Your task to perform on an android device: delete location history Image 0: 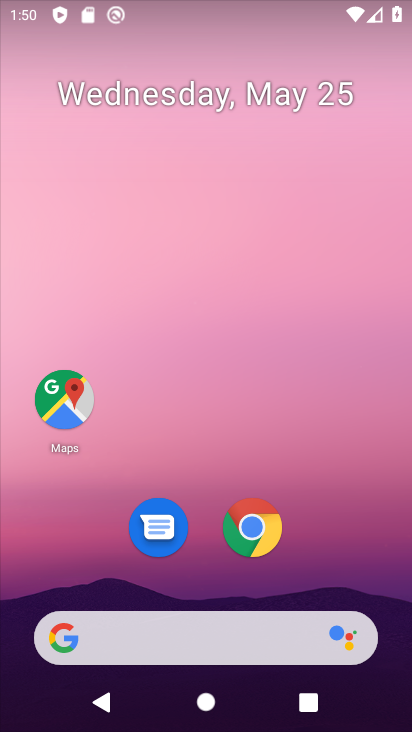
Step 0: drag from (213, 566) to (239, 195)
Your task to perform on an android device: delete location history Image 1: 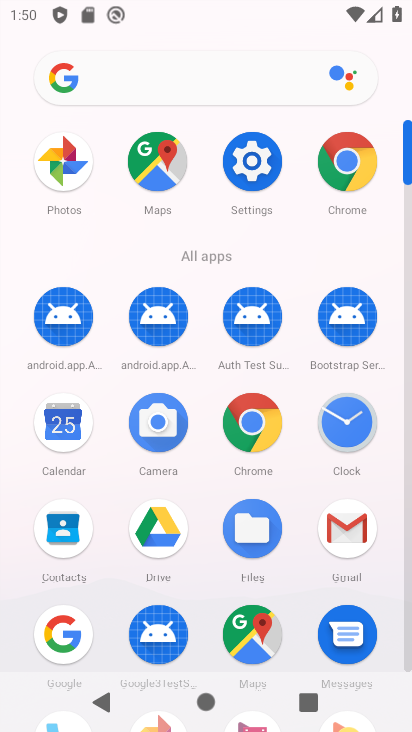
Step 1: click (248, 159)
Your task to perform on an android device: delete location history Image 2: 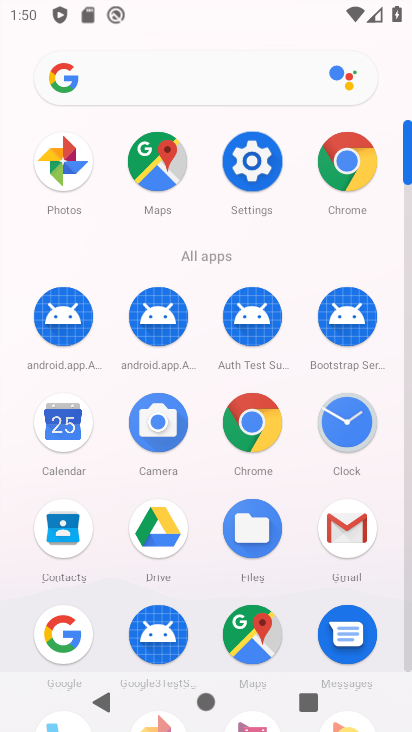
Step 2: click (248, 159)
Your task to perform on an android device: delete location history Image 3: 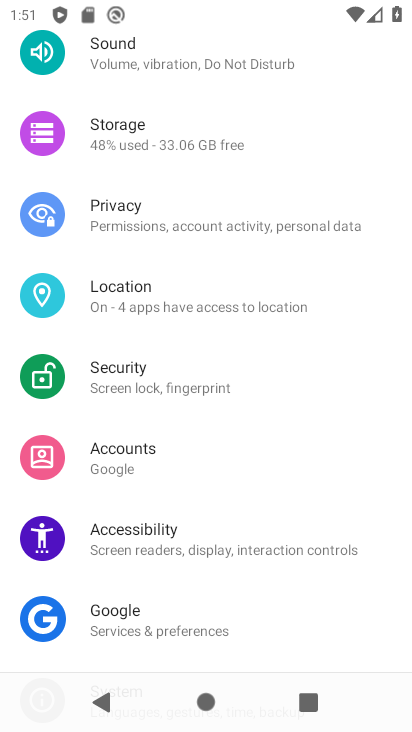
Step 3: click (158, 304)
Your task to perform on an android device: delete location history Image 4: 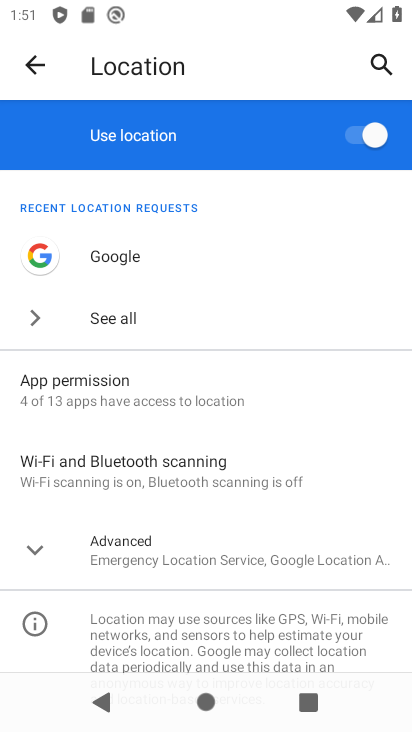
Step 4: drag from (215, 557) to (235, 361)
Your task to perform on an android device: delete location history Image 5: 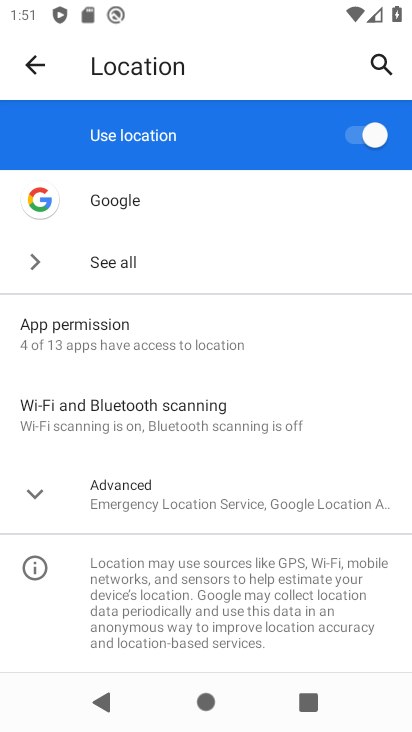
Step 5: click (167, 509)
Your task to perform on an android device: delete location history Image 6: 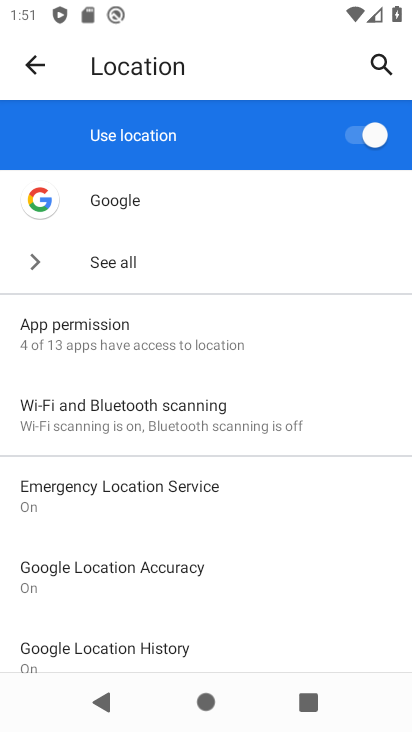
Step 6: drag from (203, 573) to (223, 361)
Your task to perform on an android device: delete location history Image 7: 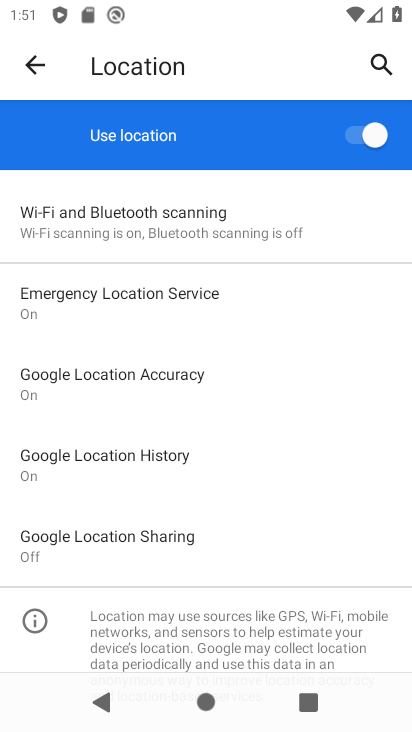
Step 7: click (163, 459)
Your task to perform on an android device: delete location history Image 8: 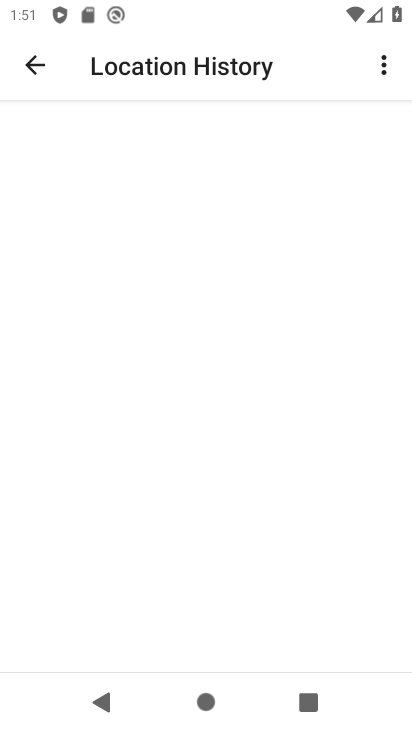
Step 8: drag from (169, 608) to (225, 297)
Your task to perform on an android device: delete location history Image 9: 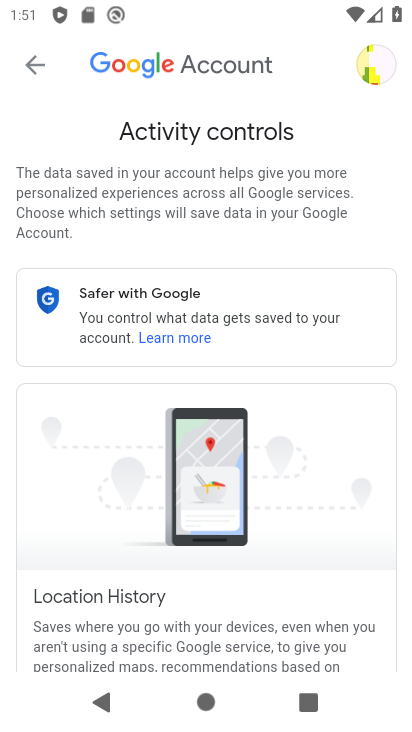
Step 9: drag from (230, 610) to (298, 220)
Your task to perform on an android device: delete location history Image 10: 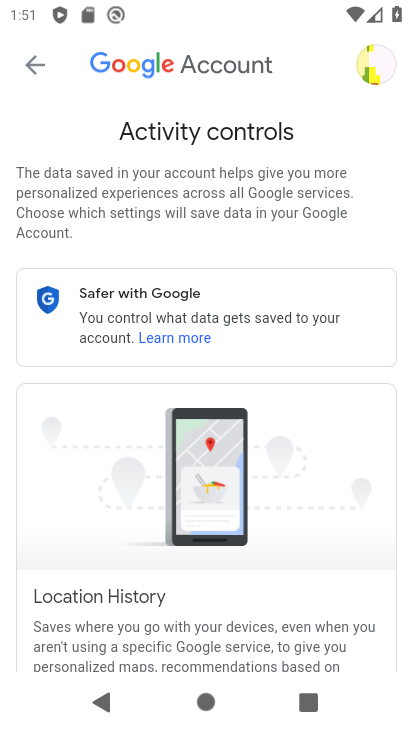
Step 10: click (51, 530)
Your task to perform on an android device: delete location history Image 11: 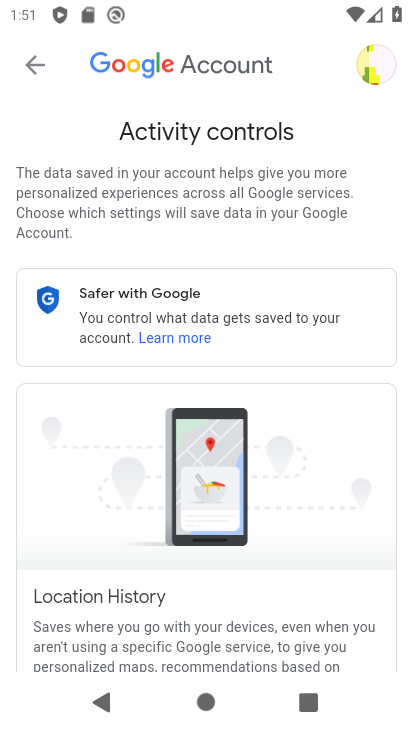
Step 11: drag from (64, 508) to (241, 121)
Your task to perform on an android device: delete location history Image 12: 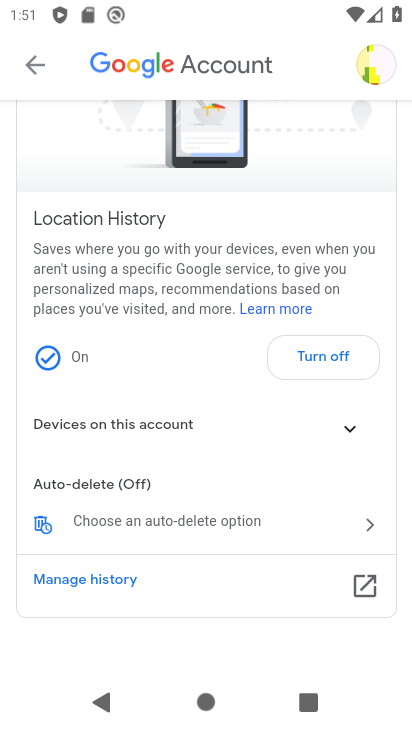
Step 12: click (45, 526)
Your task to perform on an android device: delete location history Image 13: 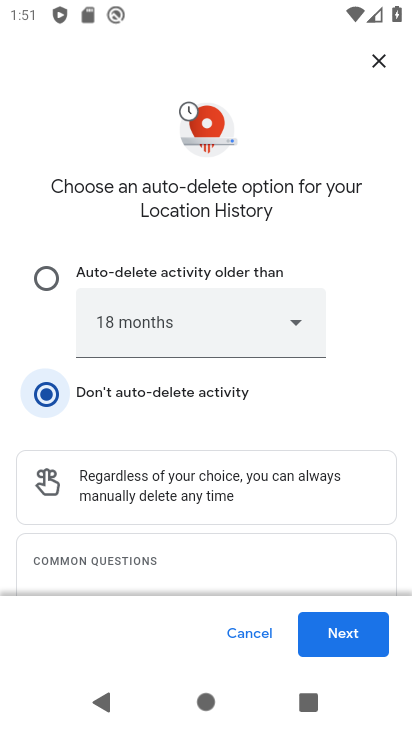
Step 13: click (340, 653)
Your task to perform on an android device: delete location history Image 14: 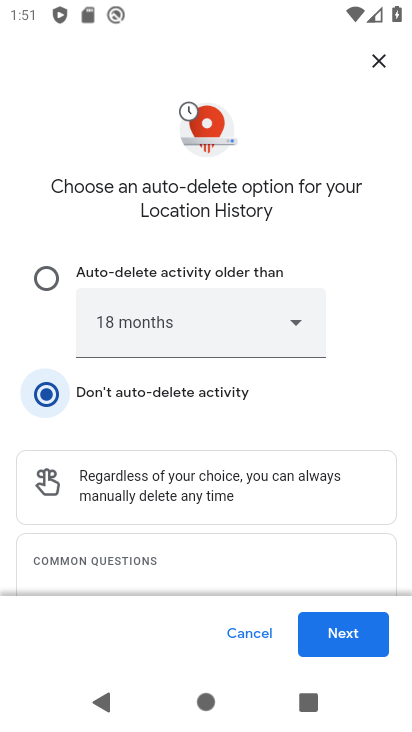
Step 14: click (338, 647)
Your task to perform on an android device: delete location history Image 15: 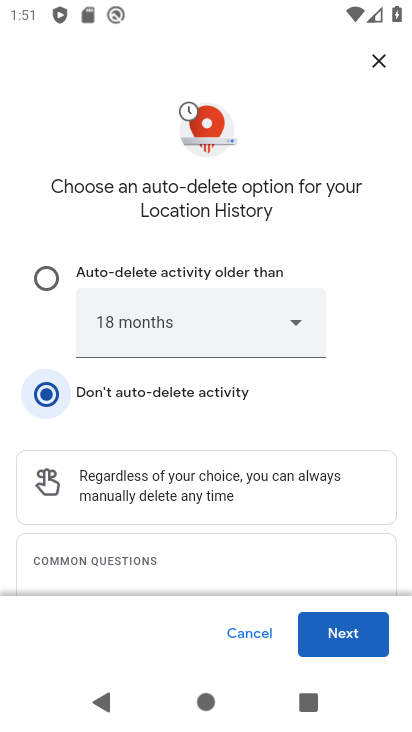
Step 15: click (338, 646)
Your task to perform on an android device: delete location history Image 16: 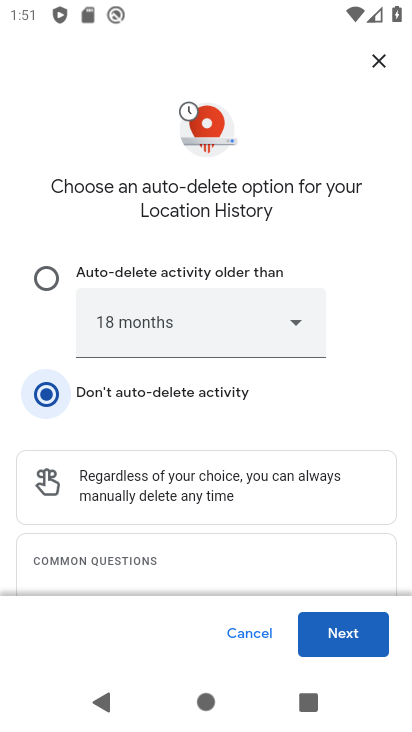
Step 16: click (336, 642)
Your task to perform on an android device: delete location history Image 17: 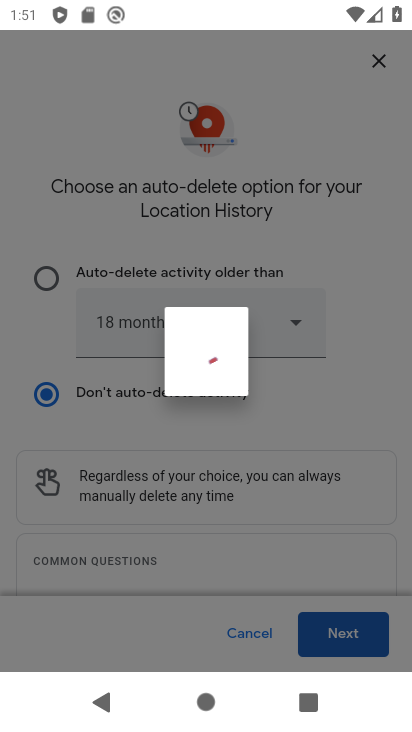
Step 17: click (334, 641)
Your task to perform on an android device: delete location history Image 18: 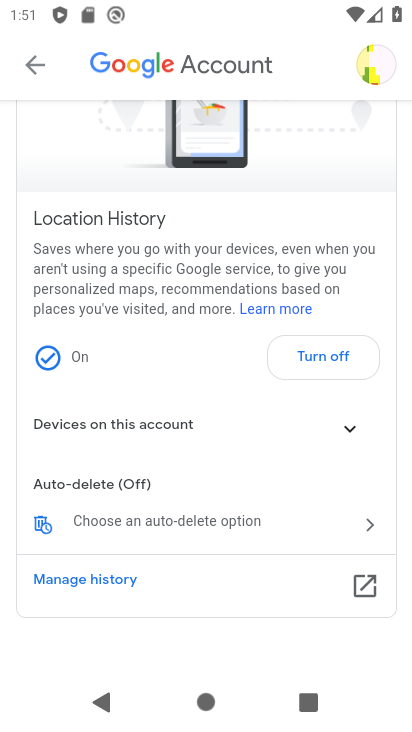
Step 18: task complete